Your task to perform on an android device: empty trash in the gmail app Image 0: 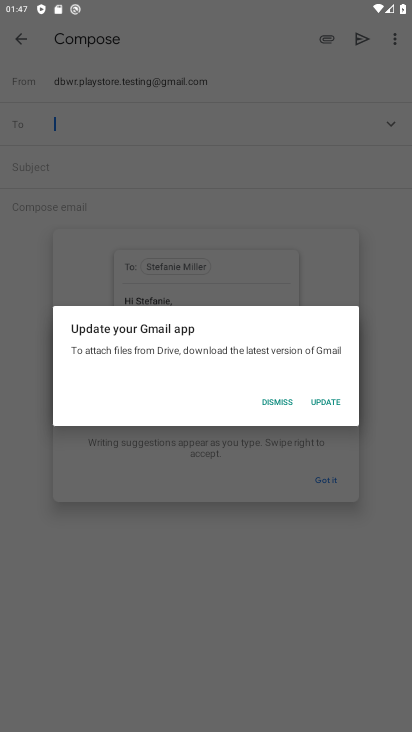
Step 0: press home button
Your task to perform on an android device: empty trash in the gmail app Image 1: 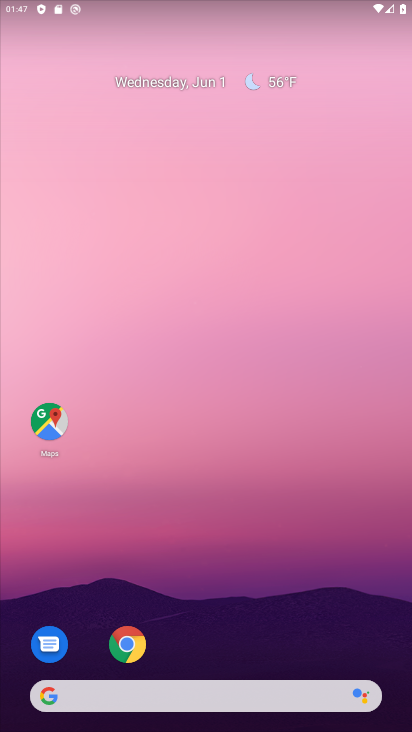
Step 1: drag from (166, 675) to (160, 329)
Your task to perform on an android device: empty trash in the gmail app Image 2: 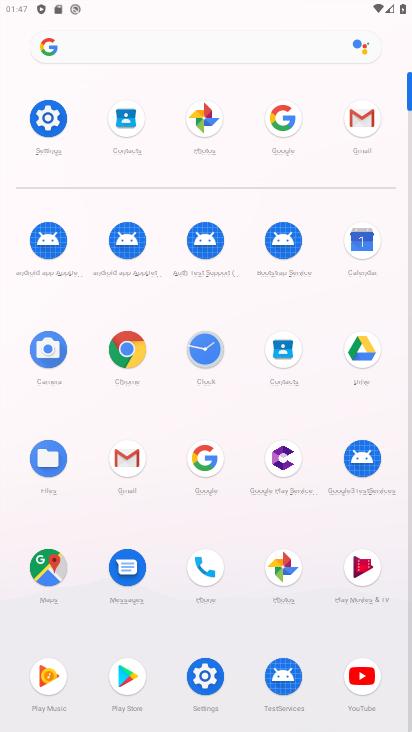
Step 2: click (127, 461)
Your task to perform on an android device: empty trash in the gmail app Image 3: 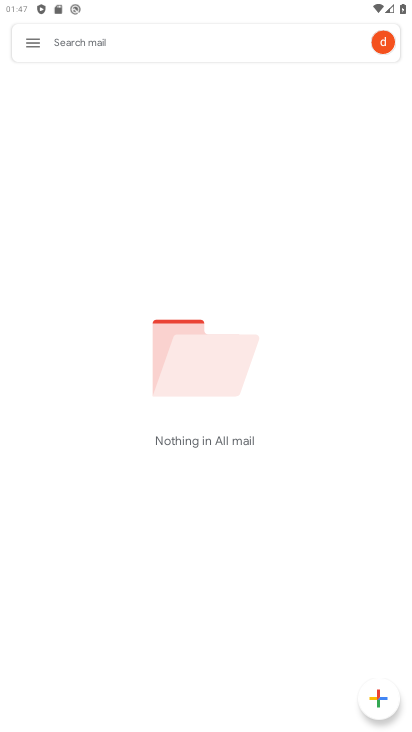
Step 3: click (29, 47)
Your task to perform on an android device: empty trash in the gmail app Image 4: 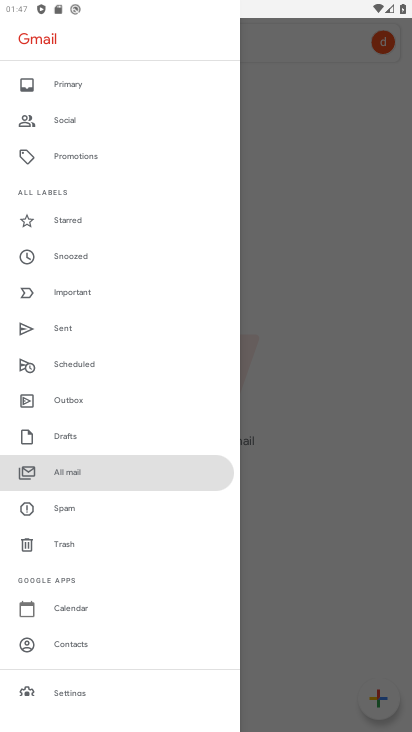
Step 4: click (74, 546)
Your task to perform on an android device: empty trash in the gmail app Image 5: 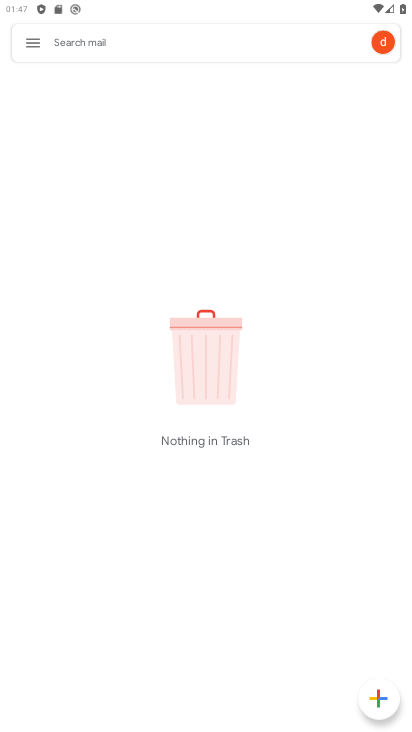
Step 5: task complete